Your task to perform on an android device: Check the weather Image 0: 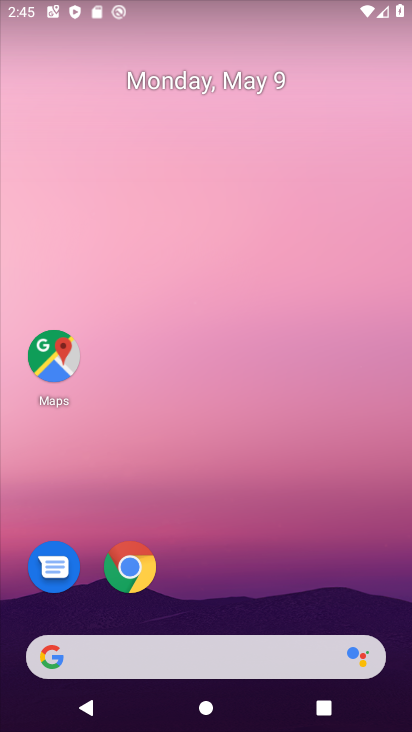
Step 0: drag from (238, 515) to (244, 98)
Your task to perform on an android device: Check the weather Image 1: 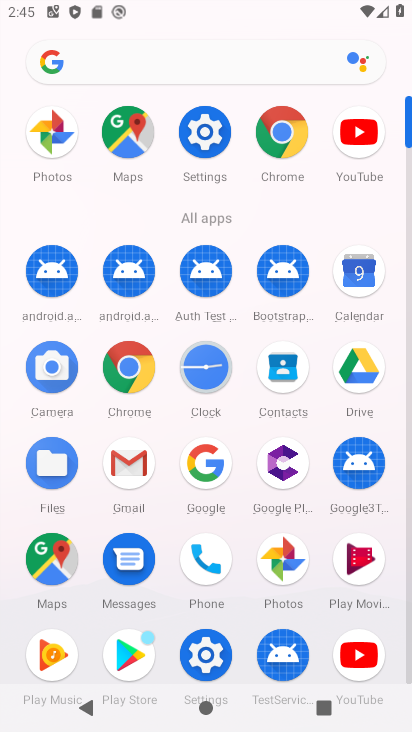
Step 1: click (208, 462)
Your task to perform on an android device: Check the weather Image 2: 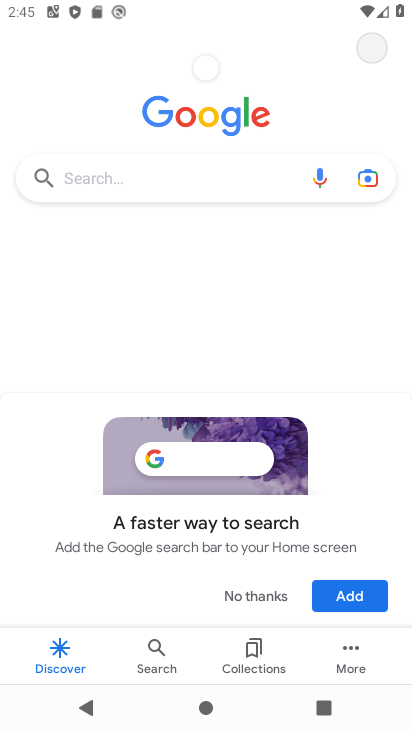
Step 2: click (129, 172)
Your task to perform on an android device: Check the weather Image 3: 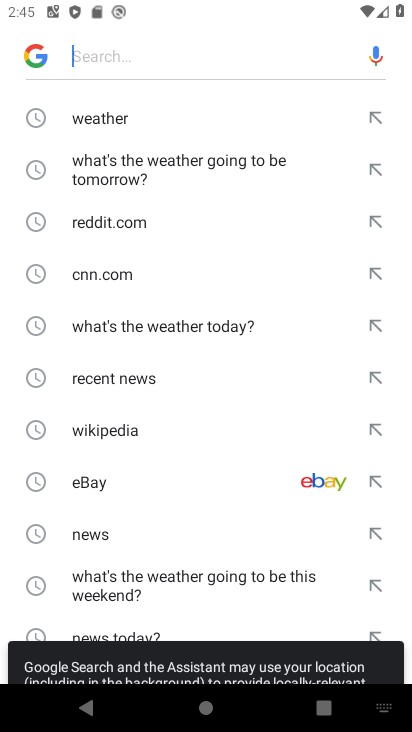
Step 3: click (109, 128)
Your task to perform on an android device: Check the weather Image 4: 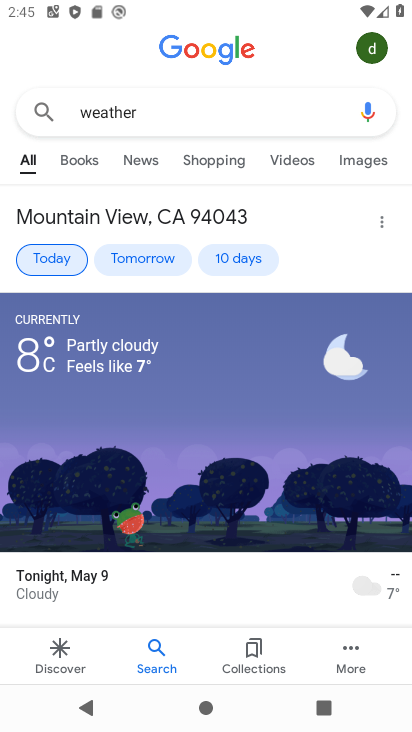
Step 4: task complete